Your task to perform on an android device: stop showing notifications on the lock screen Image 0: 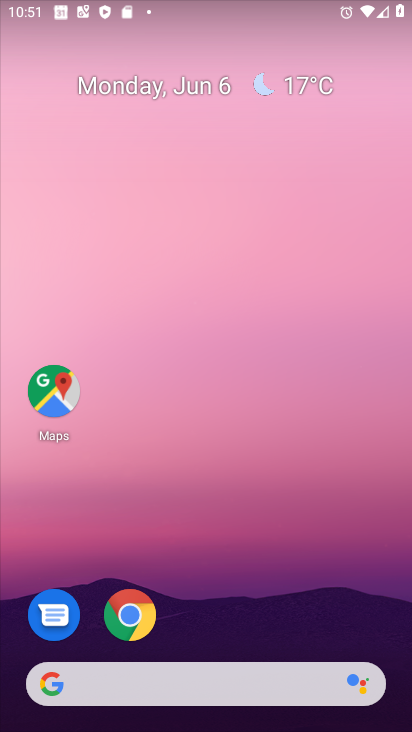
Step 0: drag from (215, 639) to (188, 79)
Your task to perform on an android device: stop showing notifications on the lock screen Image 1: 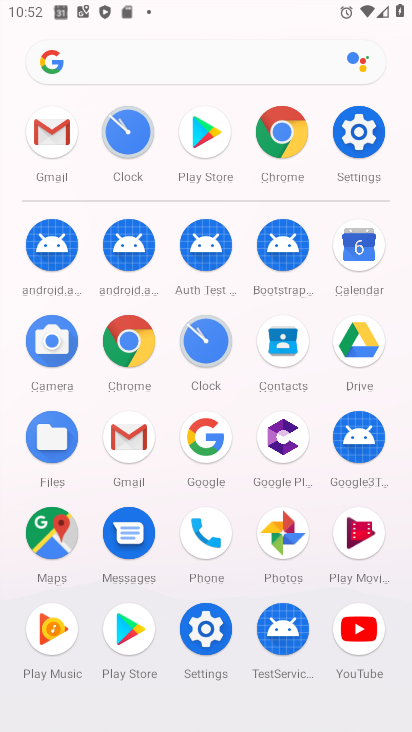
Step 1: click (195, 620)
Your task to perform on an android device: stop showing notifications on the lock screen Image 2: 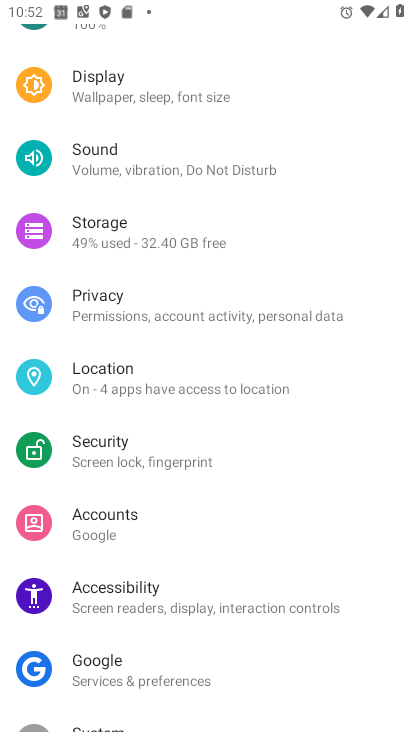
Step 2: drag from (178, 122) to (170, 534)
Your task to perform on an android device: stop showing notifications on the lock screen Image 3: 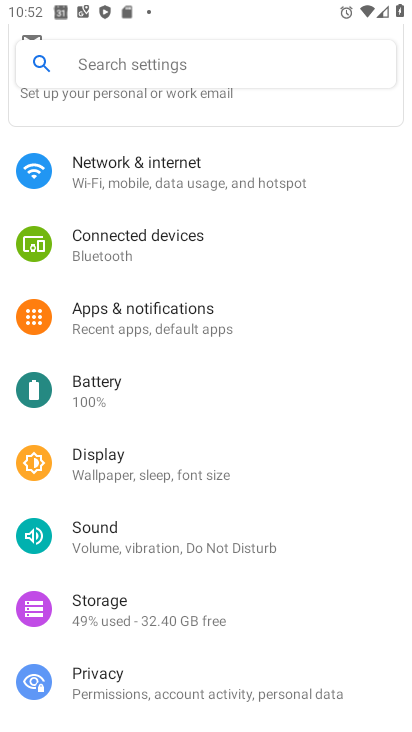
Step 3: click (65, 312)
Your task to perform on an android device: stop showing notifications on the lock screen Image 4: 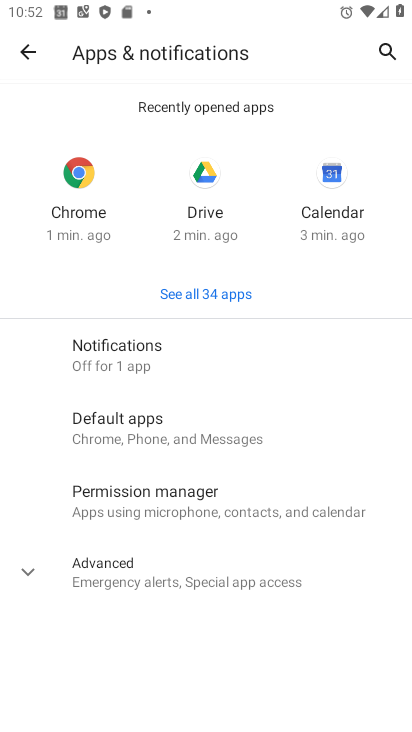
Step 4: click (179, 352)
Your task to perform on an android device: stop showing notifications on the lock screen Image 5: 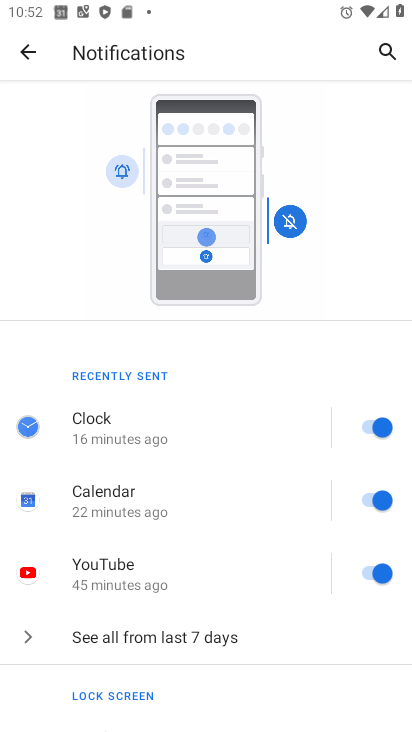
Step 5: drag from (201, 668) to (199, 270)
Your task to perform on an android device: stop showing notifications on the lock screen Image 6: 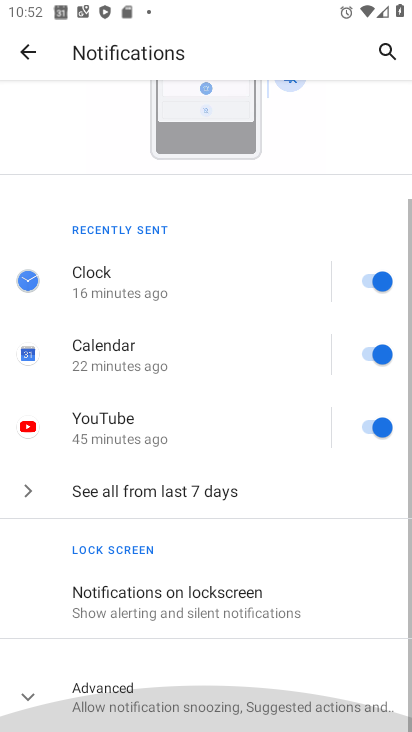
Step 6: drag from (194, 200) to (194, 150)
Your task to perform on an android device: stop showing notifications on the lock screen Image 7: 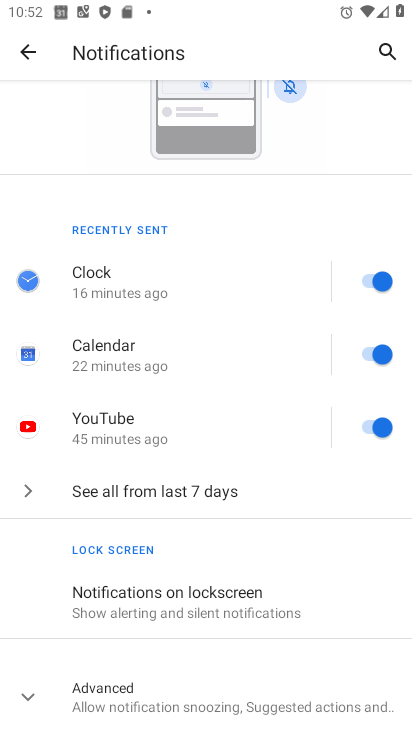
Step 7: click (269, 592)
Your task to perform on an android device: stop showing notifications on the lock screen Image 8: 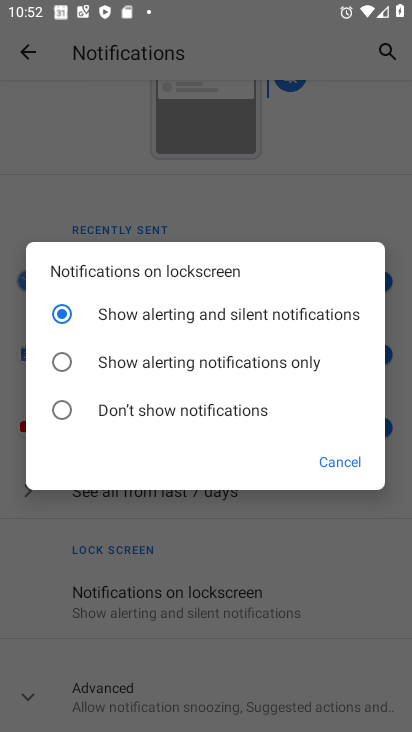
Step 8: click (63, 404)
Your task to perform on an android device: stop showing notifications on the lock screen Image 9: 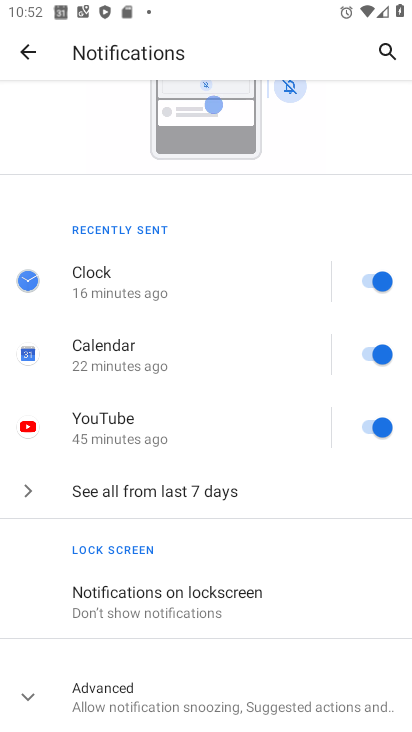
Step 9: task complete